Your task to perform on an android device: check storage Image 0: 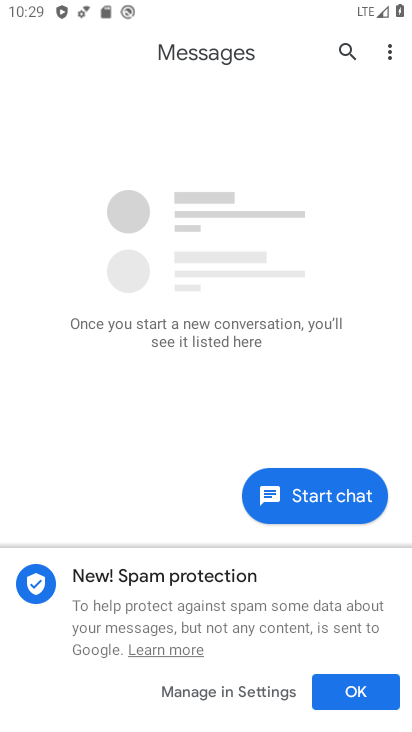
Step 0: press home button
Your task to perform on an android device: check storage Image 1: 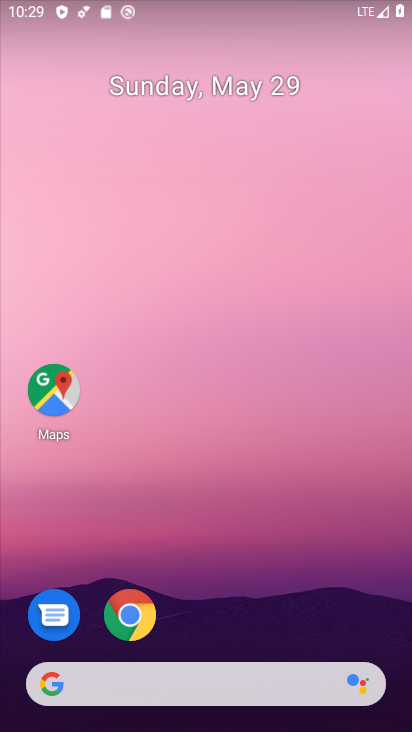
Step 1: drag from (377, 618) to (394, 219)
Your task to perform on an android device: check storage Image 2: 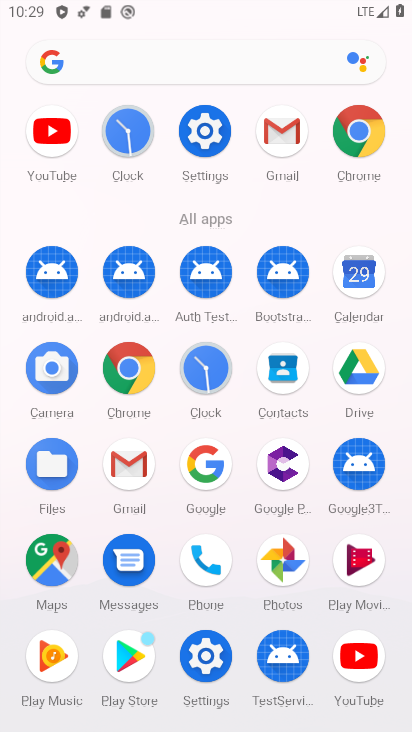
Step 2: click (206, 147)
Your task to perform on an android device: check storage Image 3: 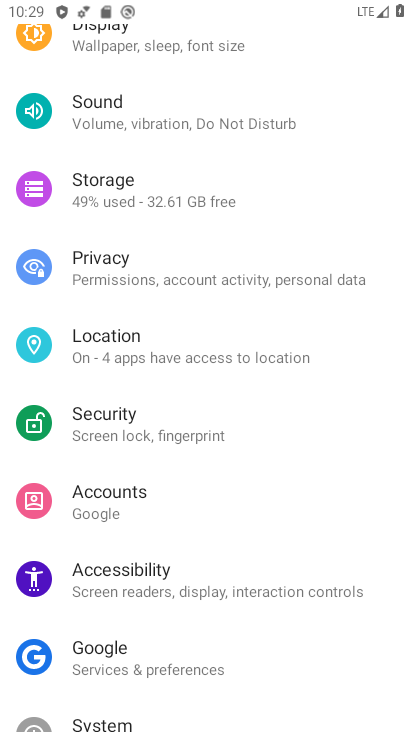
Step 3: drag from (369, 176) to (365, 274)
Your task to perform on an android device: check storage Image 4: 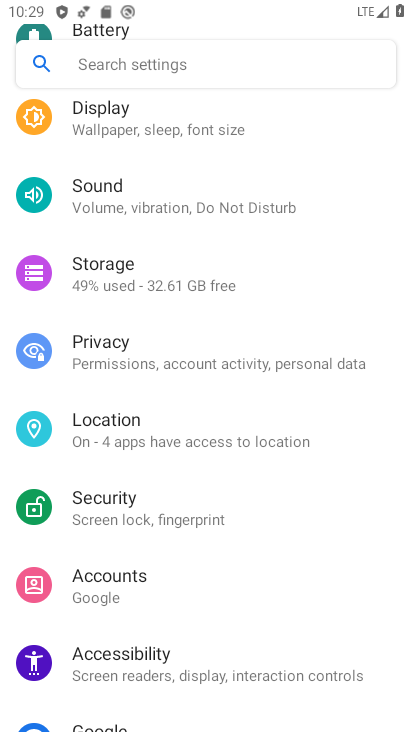
Step 4: drag from (363, 165) to (363, 262)
Your task to perform on an android device: check storage Image 5: 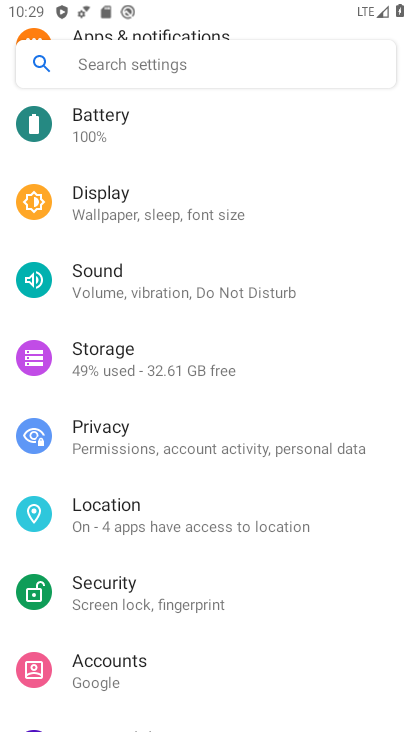
Step 5: drag from (356, 135) to (356, 252)
Your task to perform on an android device: check storage Image 6: 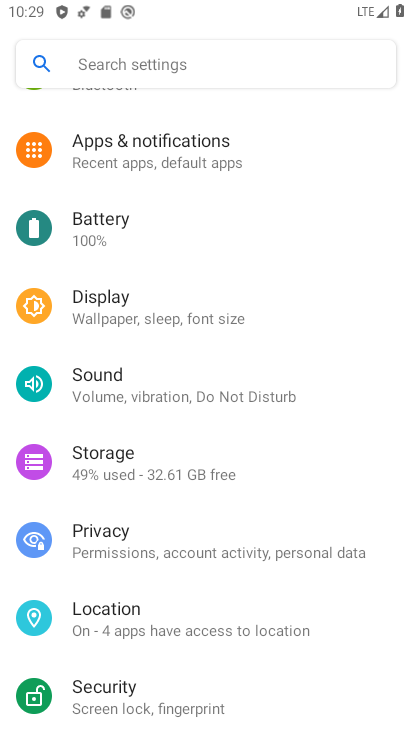
Step 6: drag from (356, 132) to (359, 241)
Your task to perform on an android device: check storage Image 7: 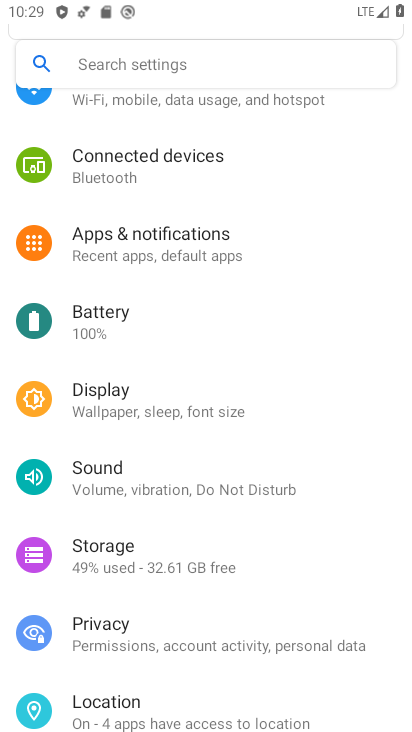
Step 7: drag from (361, 123) to (362, 240)
Your task to perform on an android device: check storage Image 8: 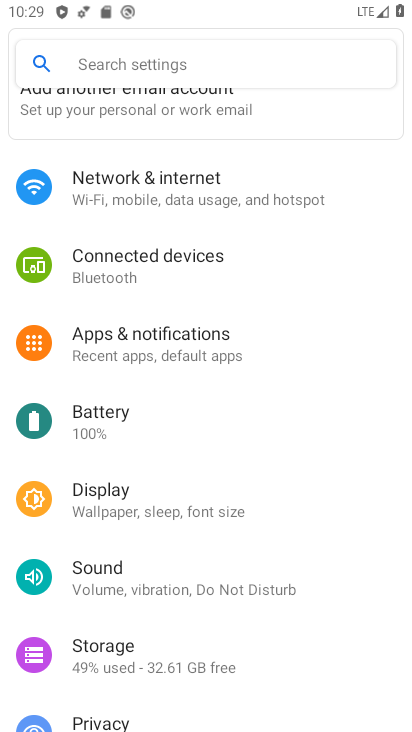
Step 8: drag from (352, 139) to (351, 257)
Your task to perform on an android device: check storage Image 9: 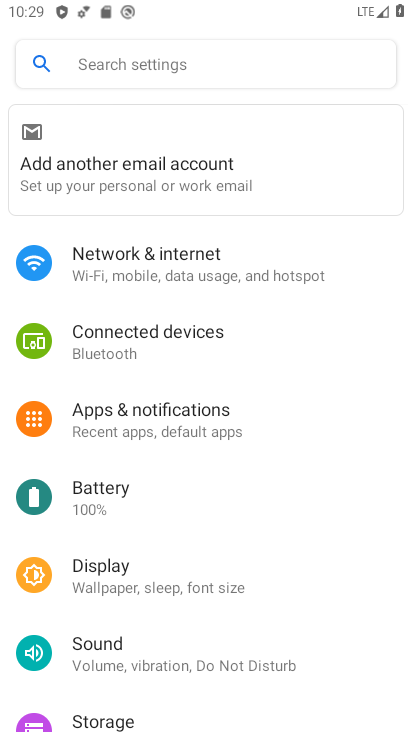
Step 9: drag from (342, 135) to (354, 273)
Your task to perform on an android device: check storage Image 10: 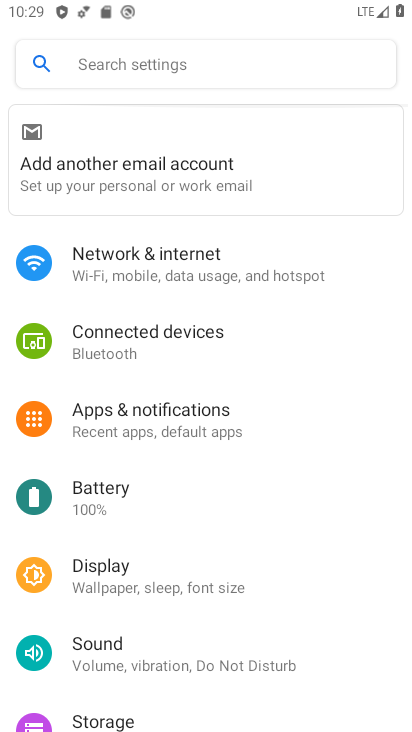
Step 10: drag from (360, 374) to (368, 288)
Your task to perform on an android device: check storage Image 11: 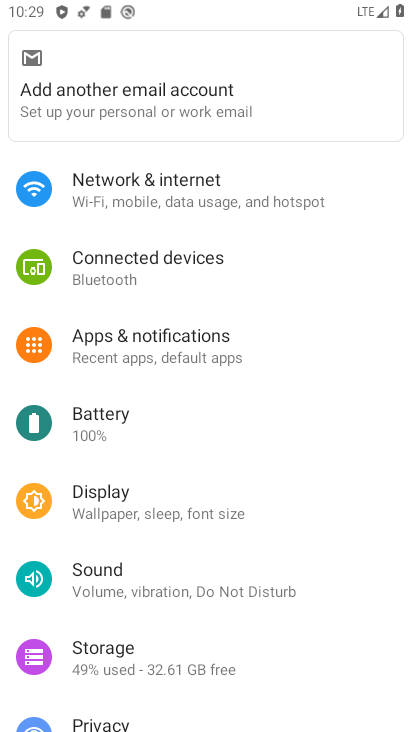
Step 11: drag from (370, 381) to (378, 236)
Your task to perform on an android device: check storage Image 12: 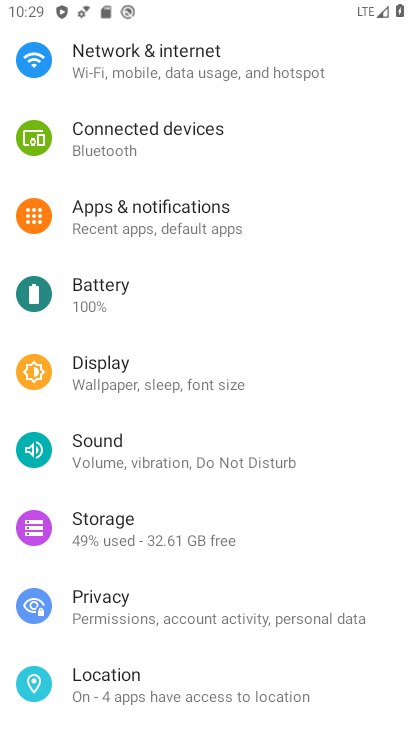
Step 12: drag from (346, 427) to (356, 331)
Your task to perform on an android device: check storage Image 13: 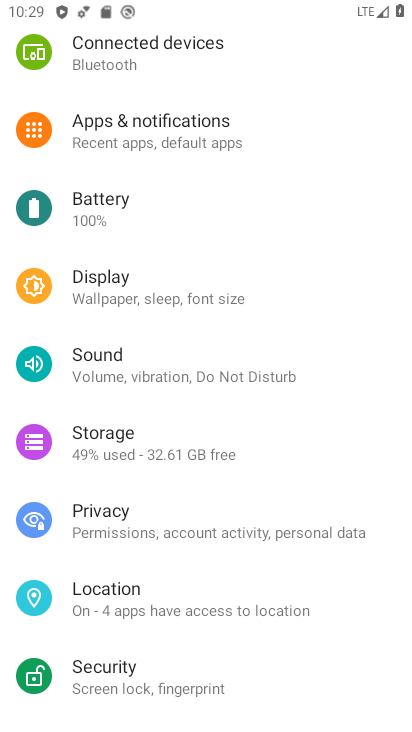
Step 13: drag from (343, 439) to (352, 330)
Your task to perform on an android device: check storage Image 14: 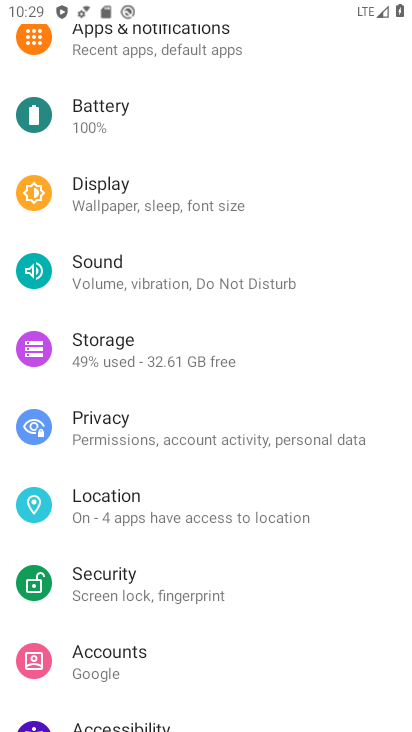
Step 14: click (174, 363)
Your task to perform on an android device: check storage Image 15: 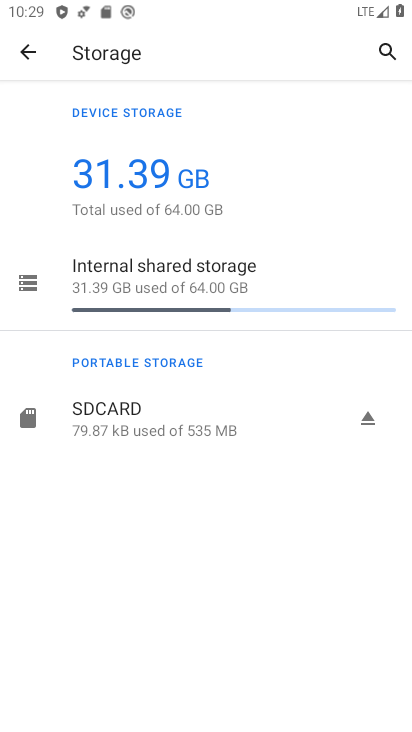
Step 15: task complete